Your task to perform on an android device: set an alarm Image 0: 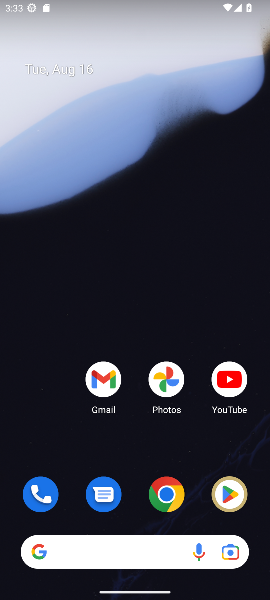
Step 0: drag from (123, 535) to (71, 71)
Your task to perform on an android device: set an alarm Image 1: 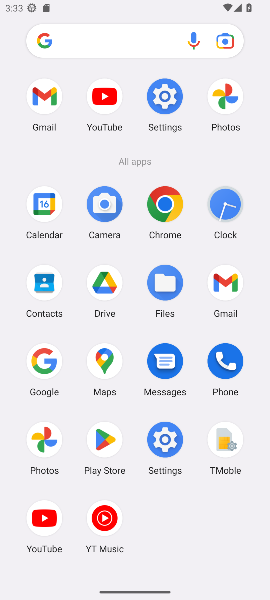
Step 1: click (224, 200)
Your task to perform on an android device: set an alarm Image 2: 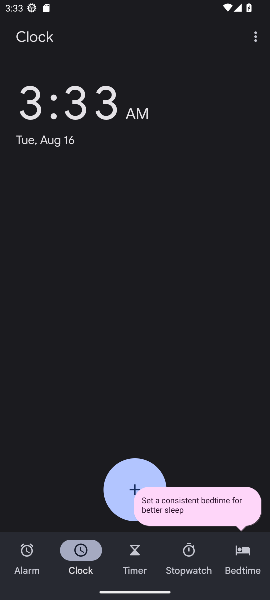
Step 2: click (25, 568)
Your task to perform on an android device: set an alarm Image 3: 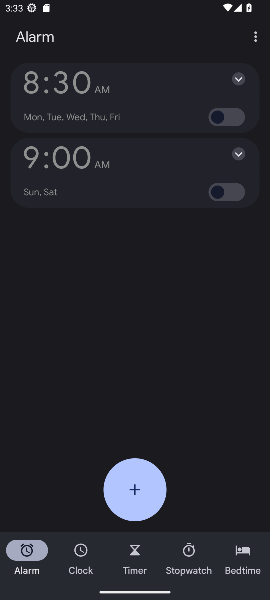
Step 3: click (119, 480)
Your task to perform on an android device: set an alarm Image 4: 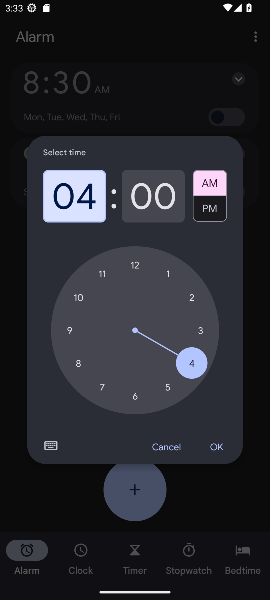
Step 4: click (214, 442)
Your task to perform on an android device: set an alarm Image 5: 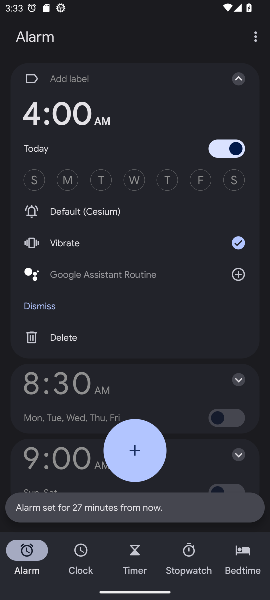
Step 5: task complete